Your task to perform on an android device: Open CNN.com Image 0: 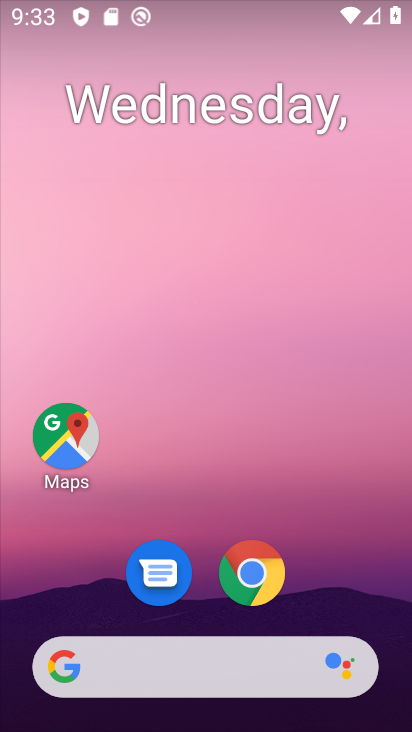
Step 0: click (262, 570)
Your task to perform on an android device: Open CNN.com Image 1: 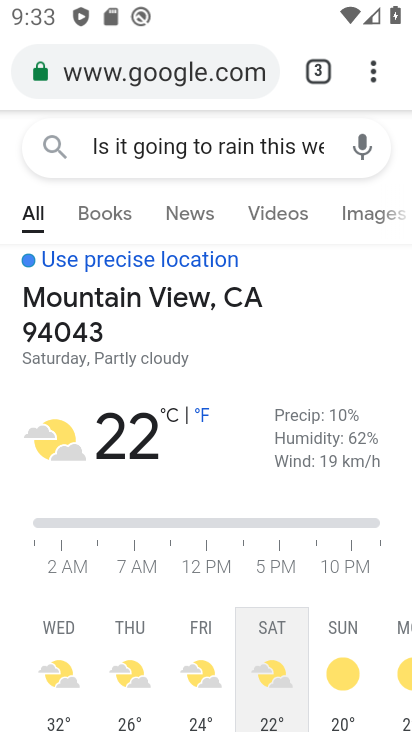
Step 1: click (366, 67)
Your task to perform on an android device: Open CNN.com Image 2: 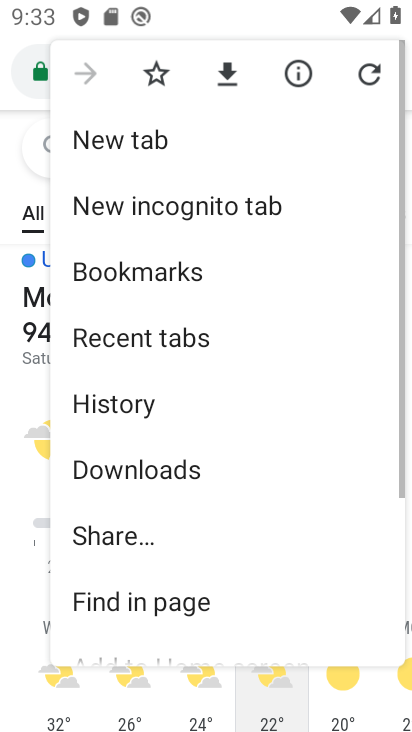
Step 2: click (177, 149)
Your task to perform on an android device: Open CNN.com Image 3: 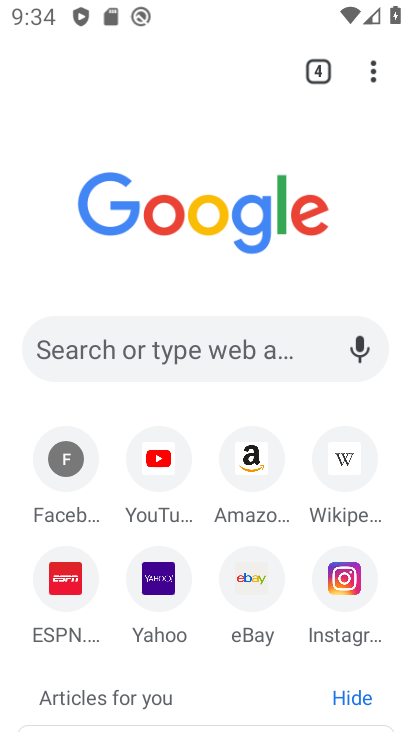
Step 3: click (211, 349)
Your task to perform on an android device: Open CNN.com Image 4: 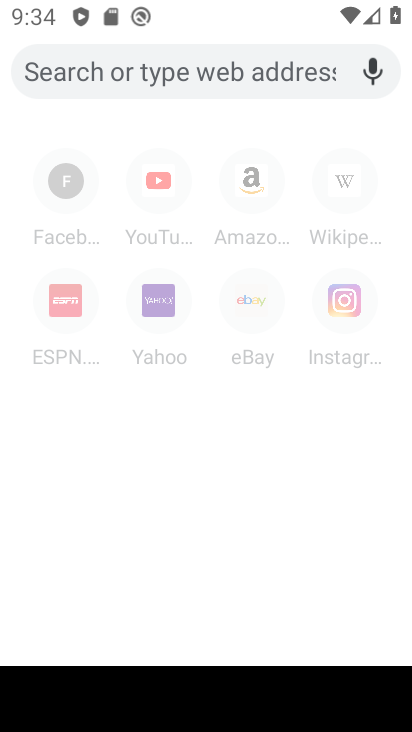
Step 4: type "CNN.com"
Your task to perform on an android device: Open CNN.com Image 5: 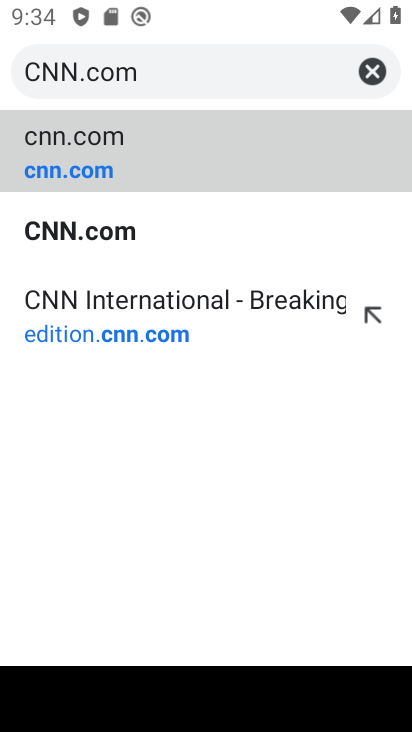
Step 5: click (148, 162)
Your task to perform on an android device: Open CNN.com Image 6: 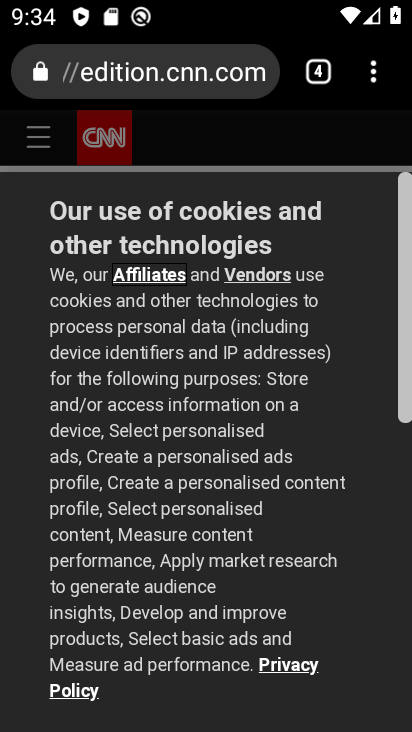
Step 6: task complete